Your task to perform on an android device: clear history in the chrome app Image 0: 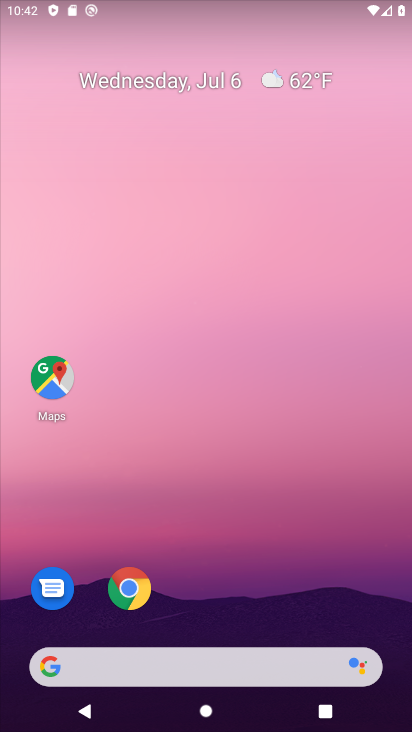
Step 0: click (132, 587)
Your task to perform on an android device: clear history in the chrome app Image 1: 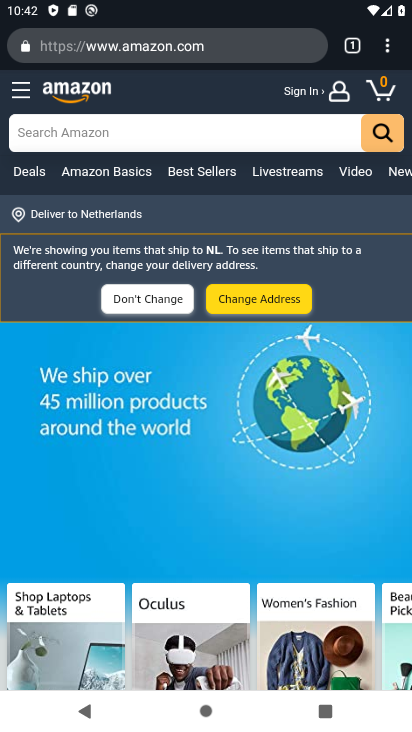
Step 1: click (390, 49)
Your task to perform on an android device: clear history in the chrome app Image 2: 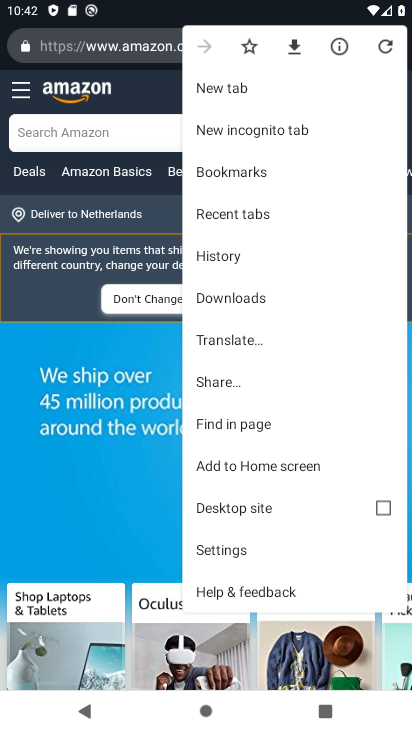
Step 2: click (216, 253)
Your task to perform on an android device: clear history in the chrome app Image 3: 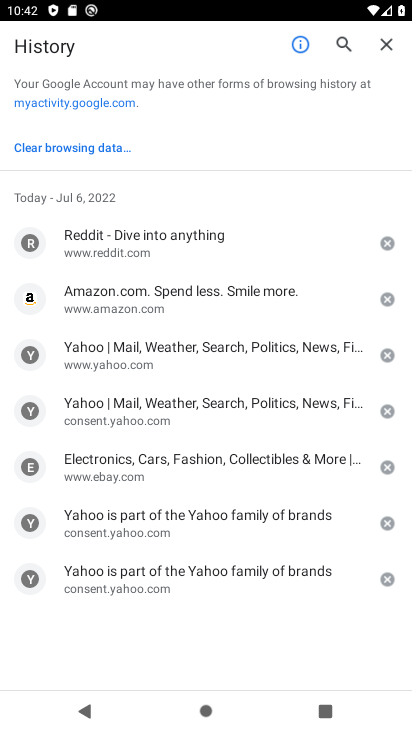
Step 3: click (63, 148)
Your task to perform on an android device: clear history in the chrome app Image 4: 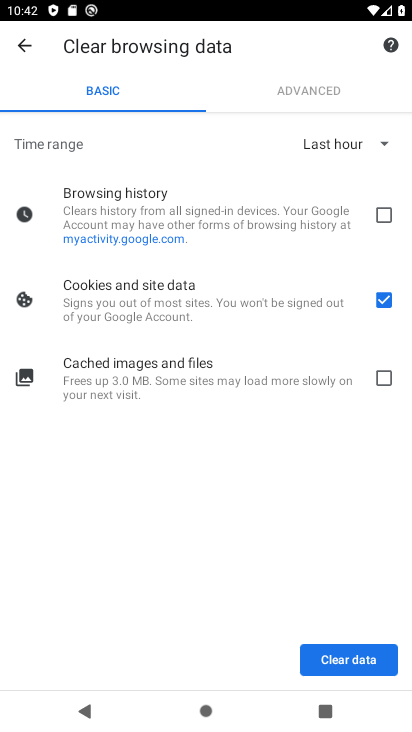
Step 4: click (384, 213)
Your task to perform on an android device: clear history in the chrome app Image 5: 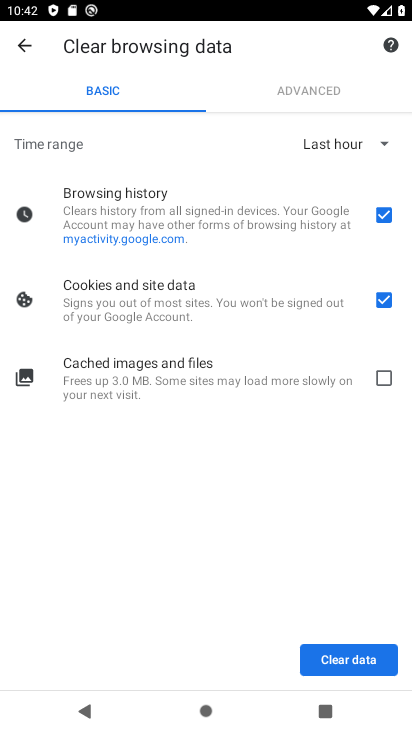
Step 5: click (383, 303)
Your task to perform on an android device: clear history in the chrome app Image 6: 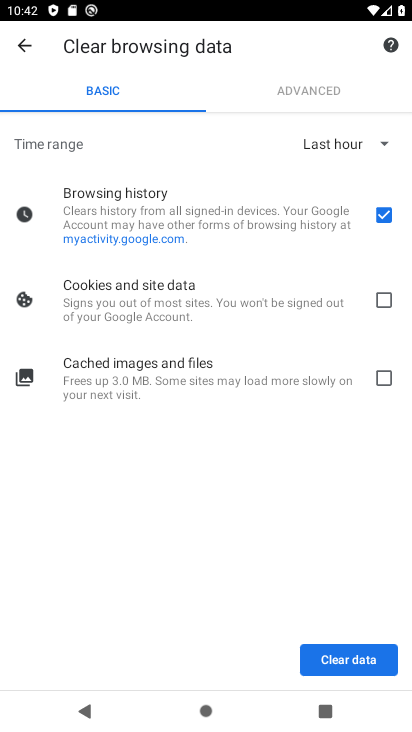
Step 6: click (348, 662)
Your task to perform on an android device: clear history in the chrome app Image 7: 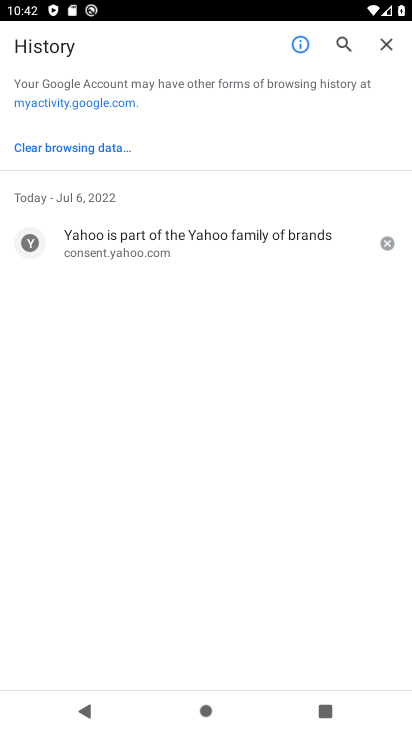
Step 7: task complete